Your task to perform on an android device: Is it going to rain tomorrow? Image 0: 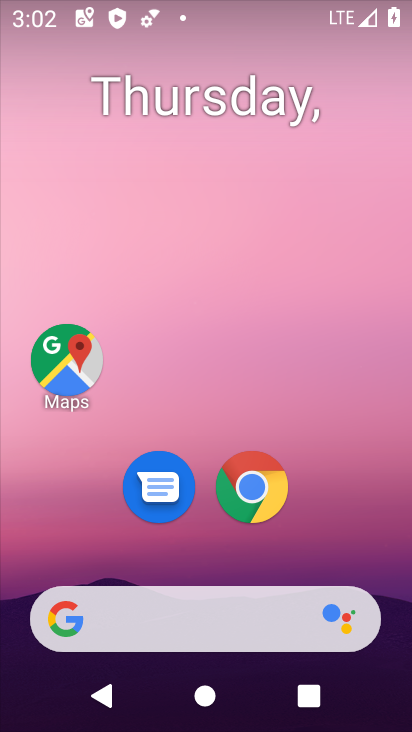
Step 0: click (56, 633)
Your task to perform on an android device: Is it going to rain tomorrow? Image 1: 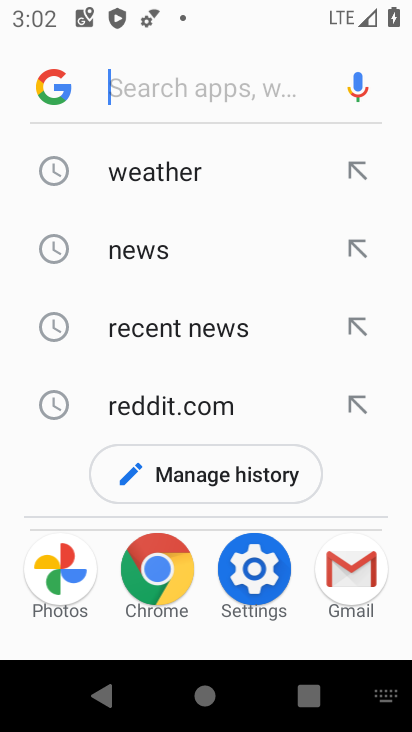
Step 1: click (59, 91)
Your task to perform on an android device: Is it going to rain tomorrow? Image 2: 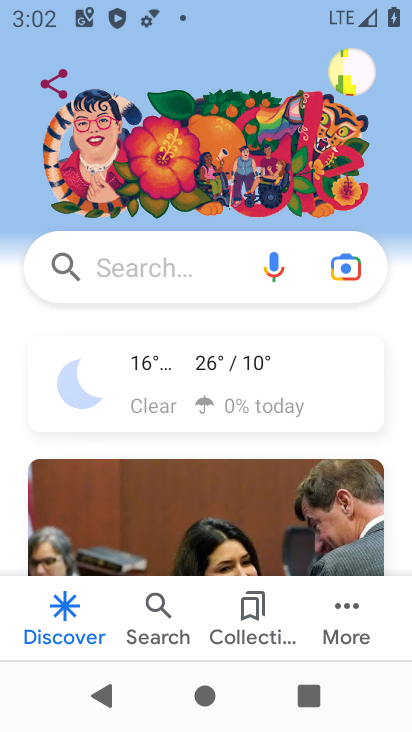
Step 2: click (266, 390)
Your task to perform on an android device: Is it going to rain tomorrow? Image 3: 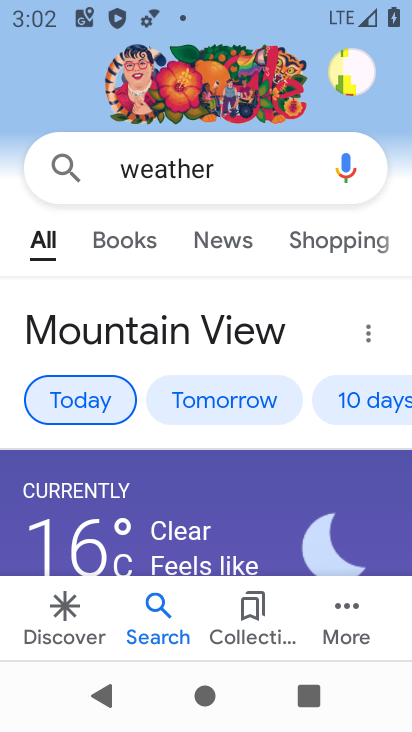
Step 3: task complete